Your task to perform on an android device: visit the assistant section in the google photos Image 0: 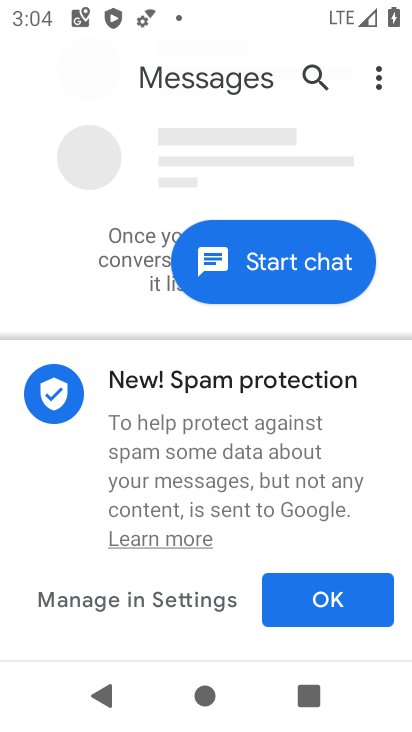
Step 0: press home button
Your task to perform on an android device: visit the assistant section in the google photos Image 1: 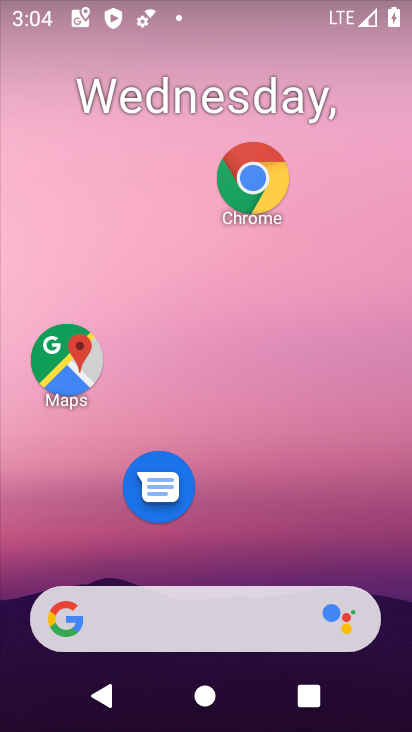
Step 1: drag from (254, 554) to (263, 64)
Your task to perform on an android device: visit the assistant section in the google photos Image 2: 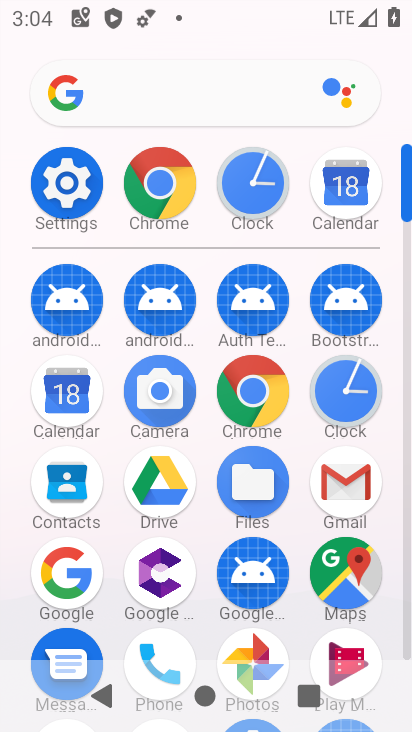
Step 2: drag from (287, 622) to (303, 382)
Your task to perform on an android device: visit the assistant section in the google photos Image 3: 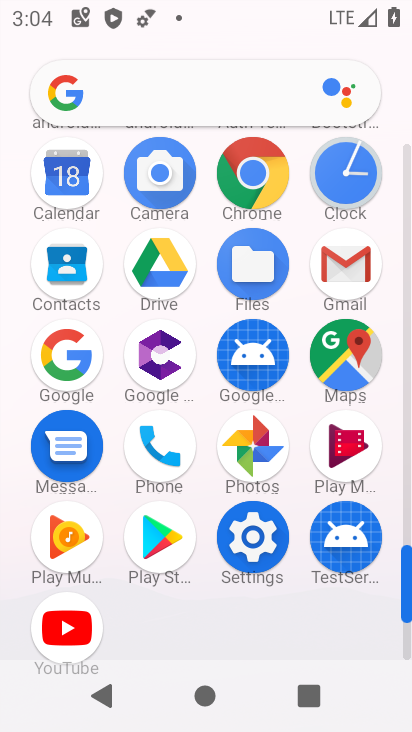
Step 3: click (253, 453)
Your task to perform on an android device: visit the assistant section in the google photos Image 4: 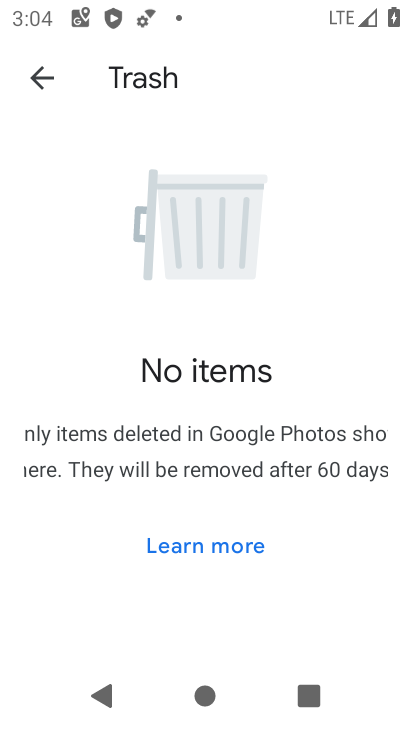
Step 4: click (37, 74)
Your task to perform on an android device: visit the assistant section in the google photos Image 5: 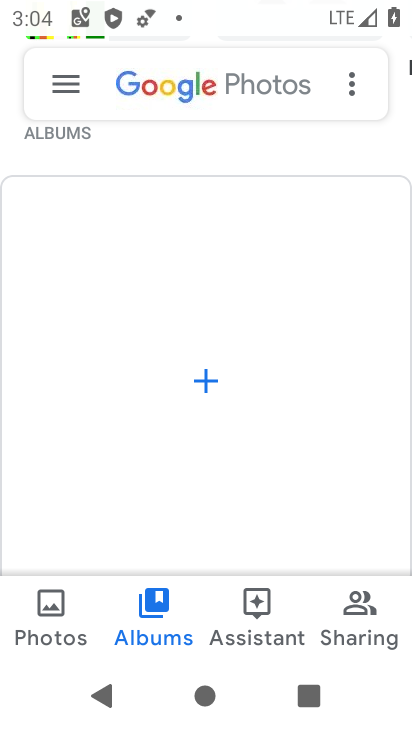
Step 5: click (270, 616)
Your task to perform on an android device: visit the assistant section in the google photos Image 6: 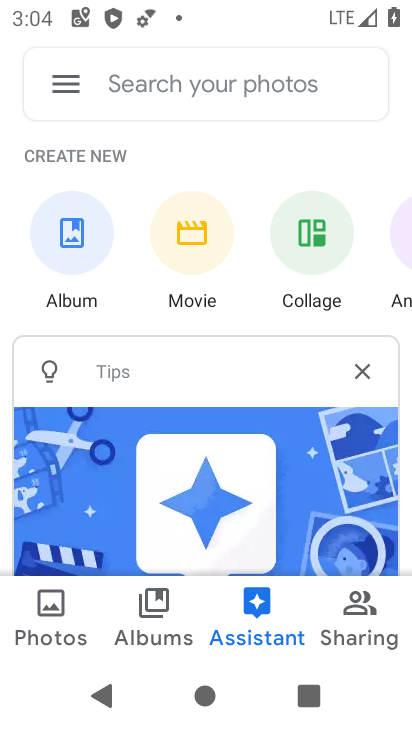
Step 6: task complete